Your task to perform on an android device: Add energizer triple a to the cart on bestbuy.com, then select checkout. Image 0: 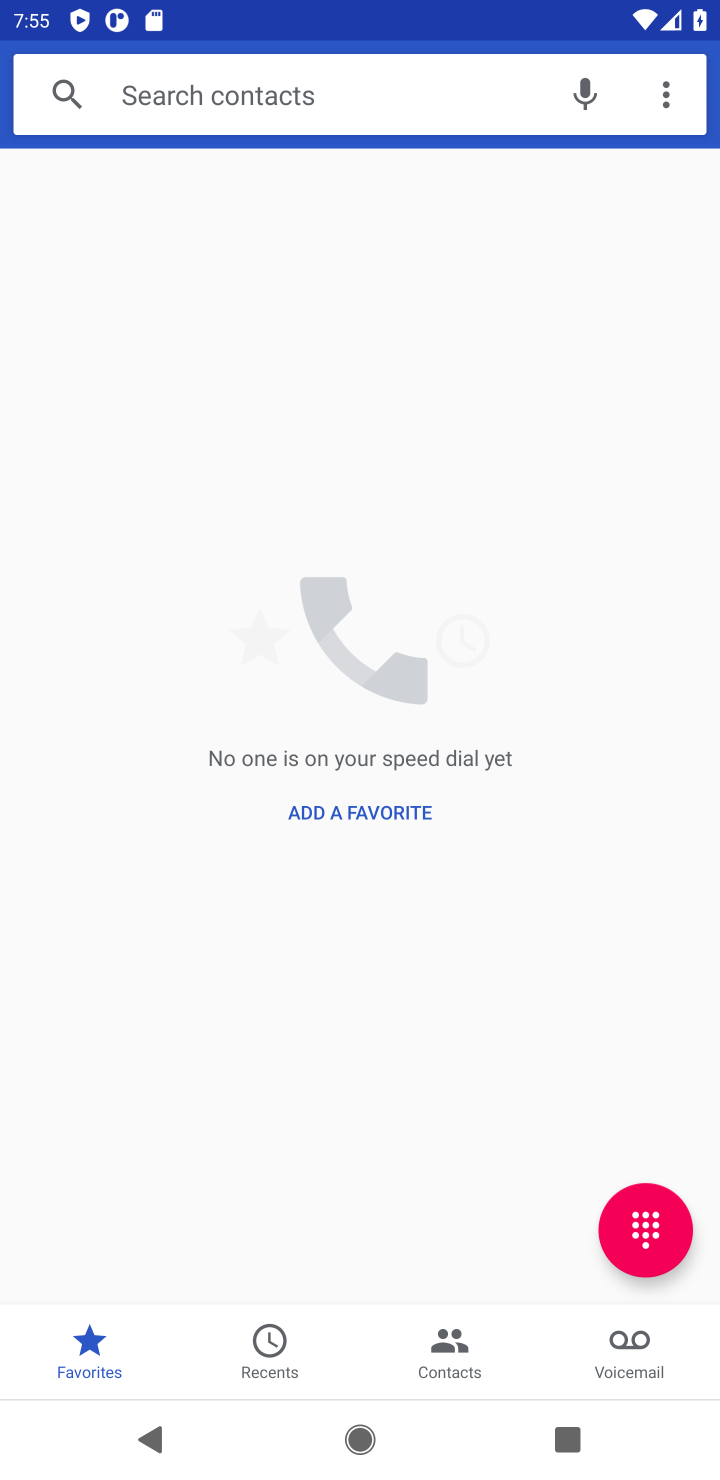
Step 0: press home button
Your task to perform on an android device: Add energizer triple a to the cart on bestbuy.com, then select checkout. Image 1: 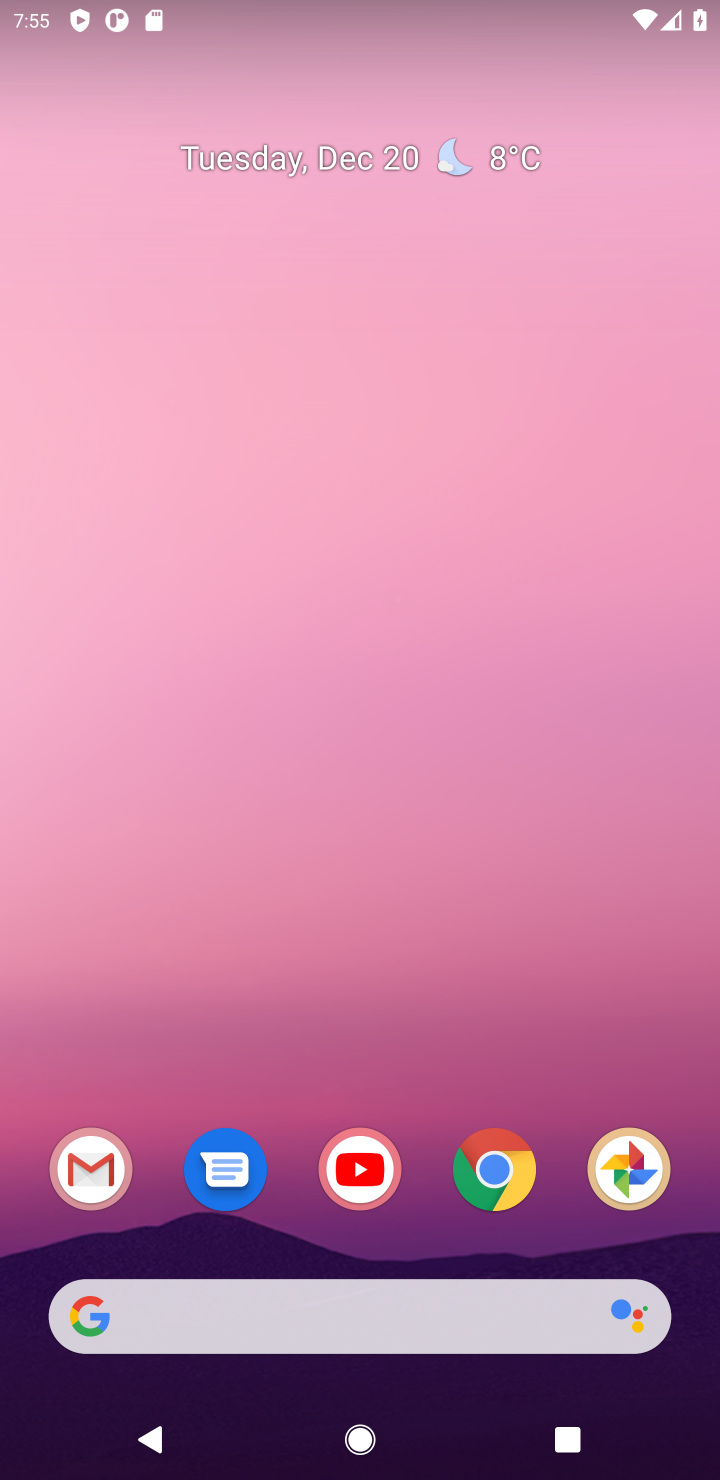
Step 1: click (514, 1182)
Your task to perform on an android device: Add energizer triple a to the cart on bestbuy.com, then select checkout. Image 2: 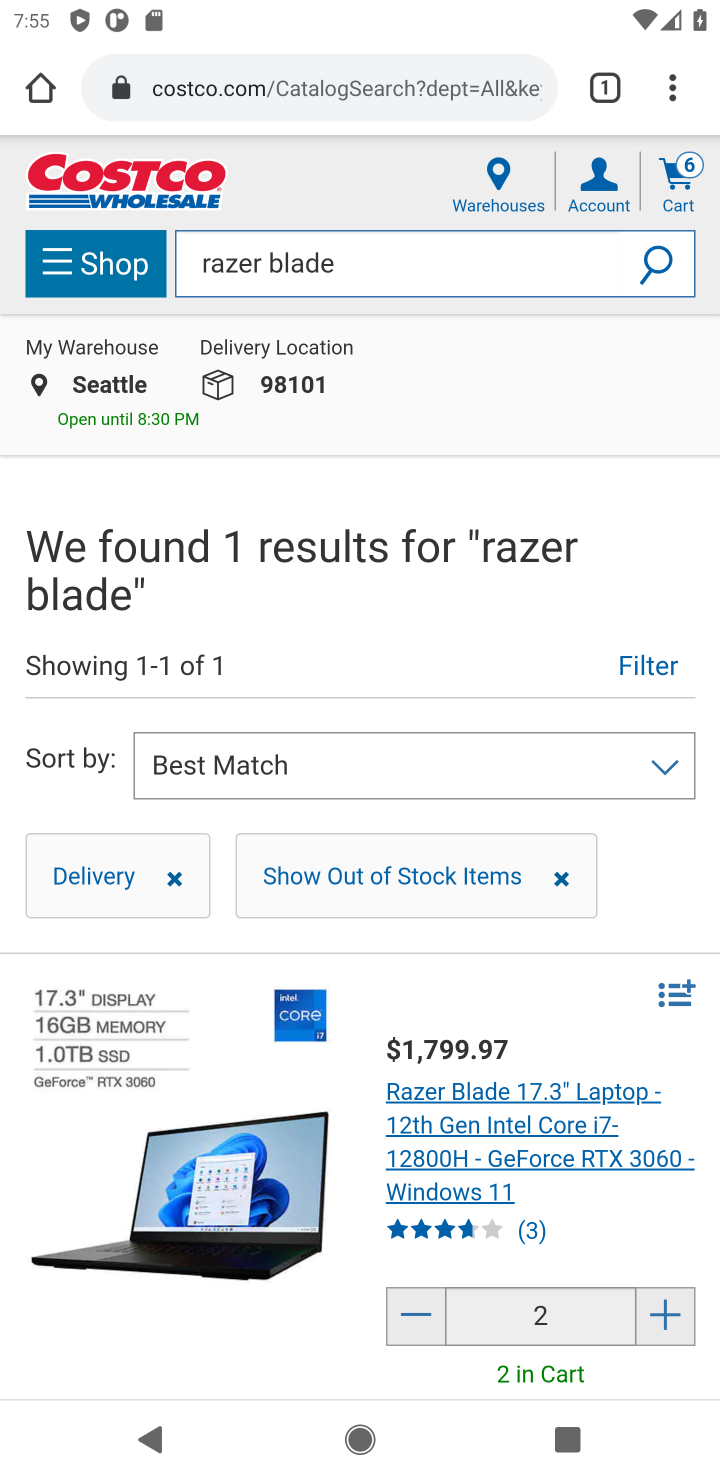
Step 2: click (301, 93)
Your task to perform on an android device: Add energizer triple a to the cart on bestbuy.com, then select checkout. Image 3: 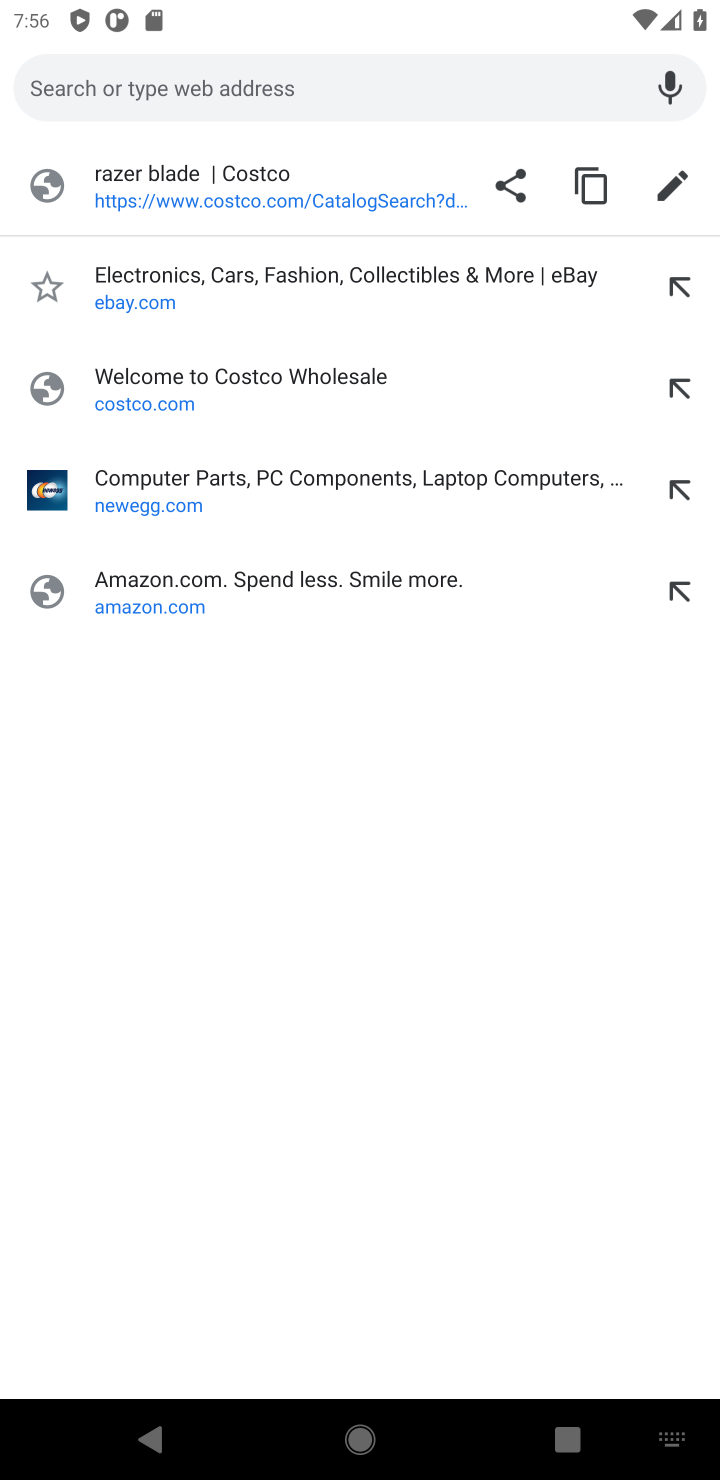
Step 3: type "bestbuy"
Your task to perform on an android device: Add energizer triple a to the cart on bestbuy.com, then select checkout. Image 4: 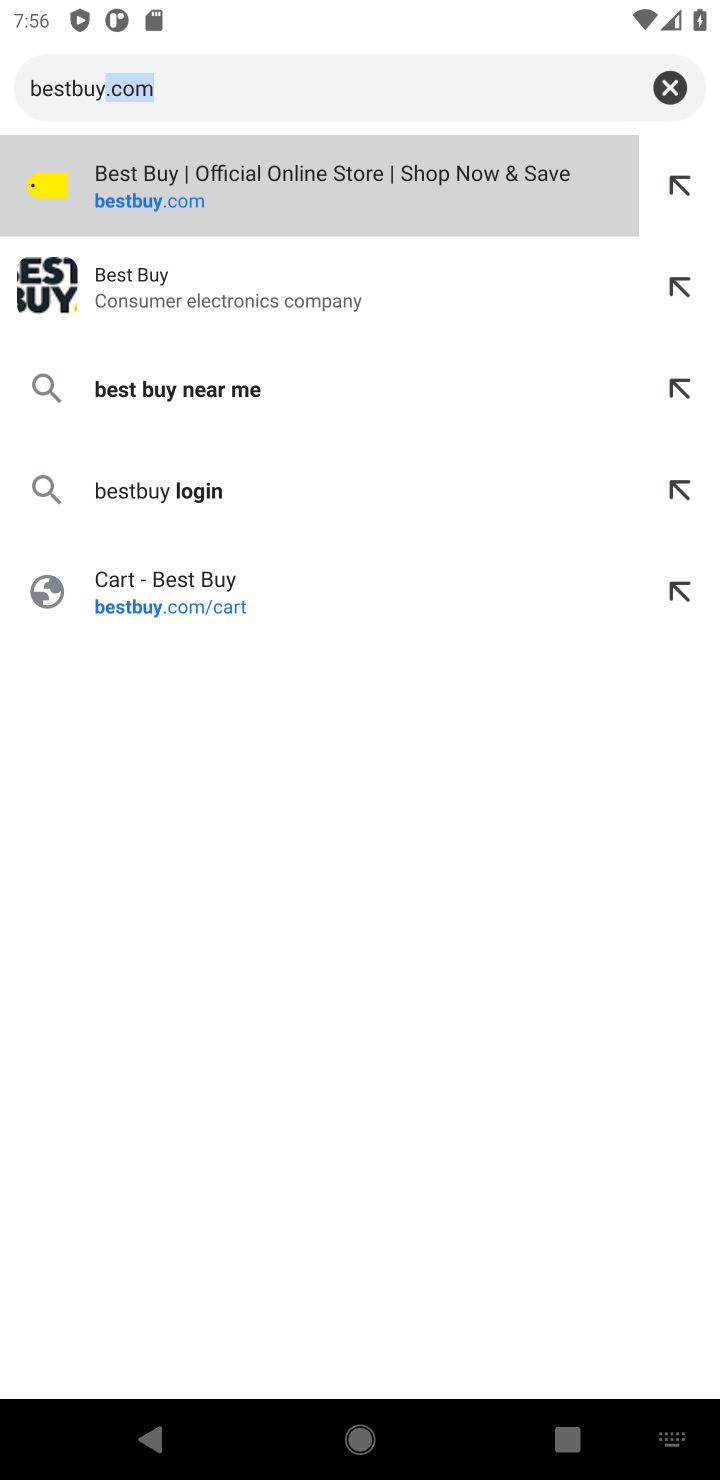
Step 4: click (241, 216)
Your task to perform on an android device: Add energizer triple a to the cart on bestbuy.com, then select checkout. Image 5: 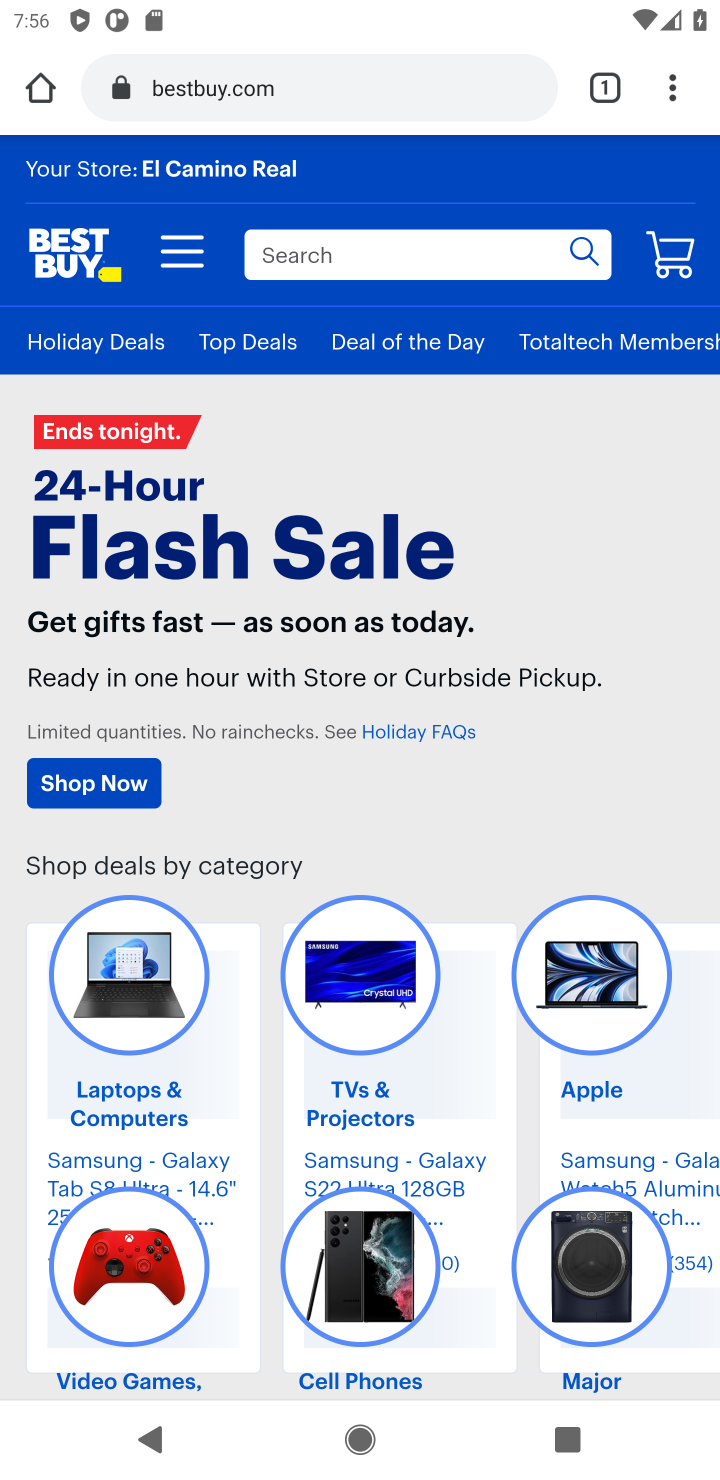
Step 5: click (356, 258)
Your task to perform on an android device: Add energizer triple a to the cart on bestbuy.com, then select checkout. Image 6: 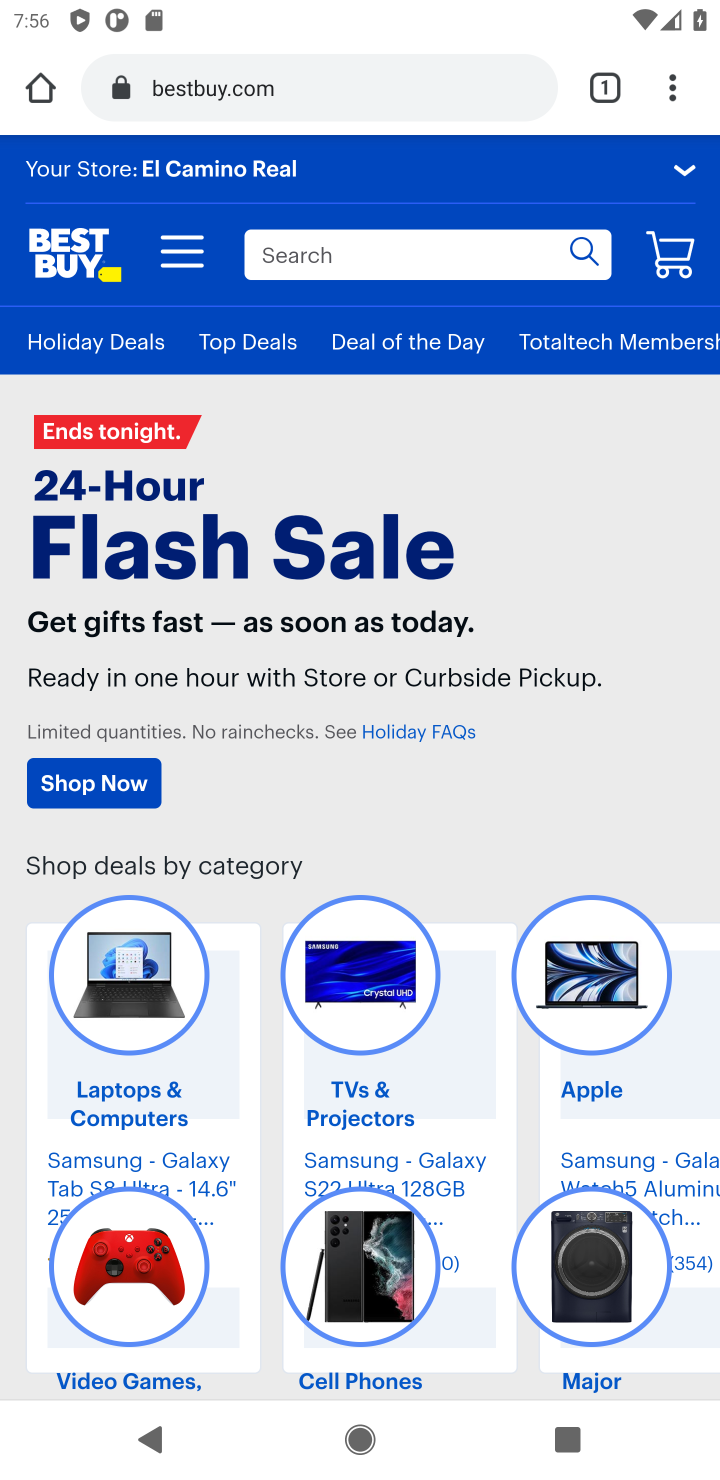
Step 6: click (334, 264)
Your task to perform on an android device: Add energizer triple a to the cart on bestbuy.com, then select checkout. Image 7: 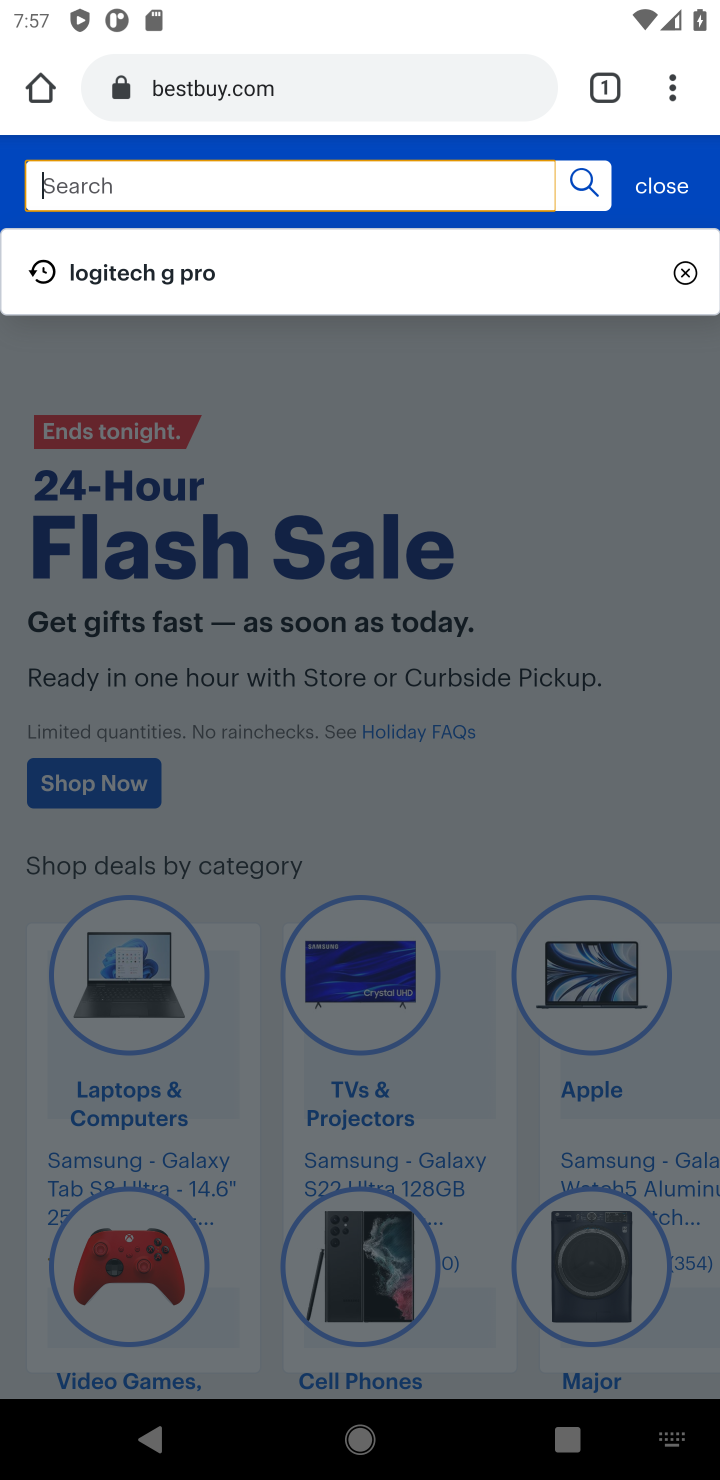
Step 7: type "energizer triple a"
Your task to perform on an android device: Add energizer triple a to the cart on bestbuy.com, then select checkout. Image 8: 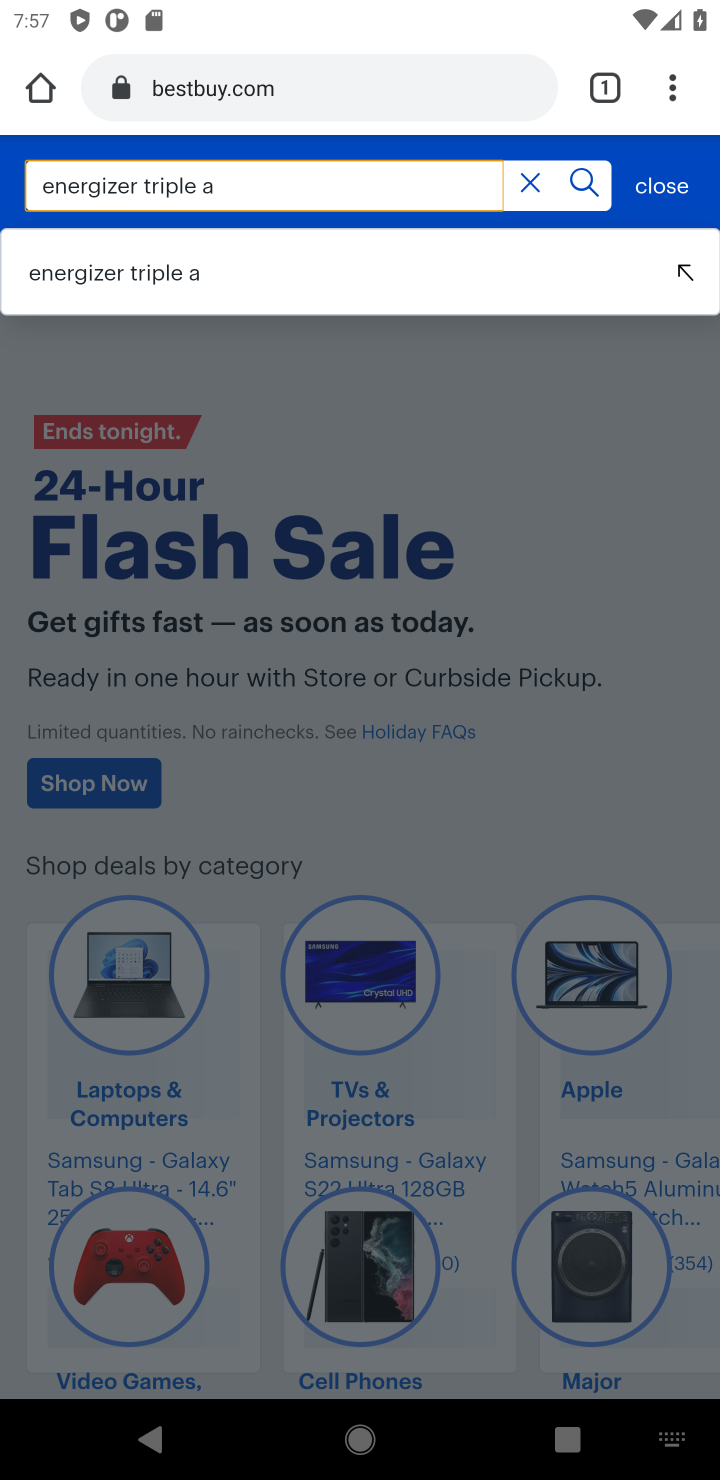
Step 8: click (50, 265)
Your task to perform on an android device: Add energizer triple a to the cart on bestbuy.com, then select checkout. Image 9: 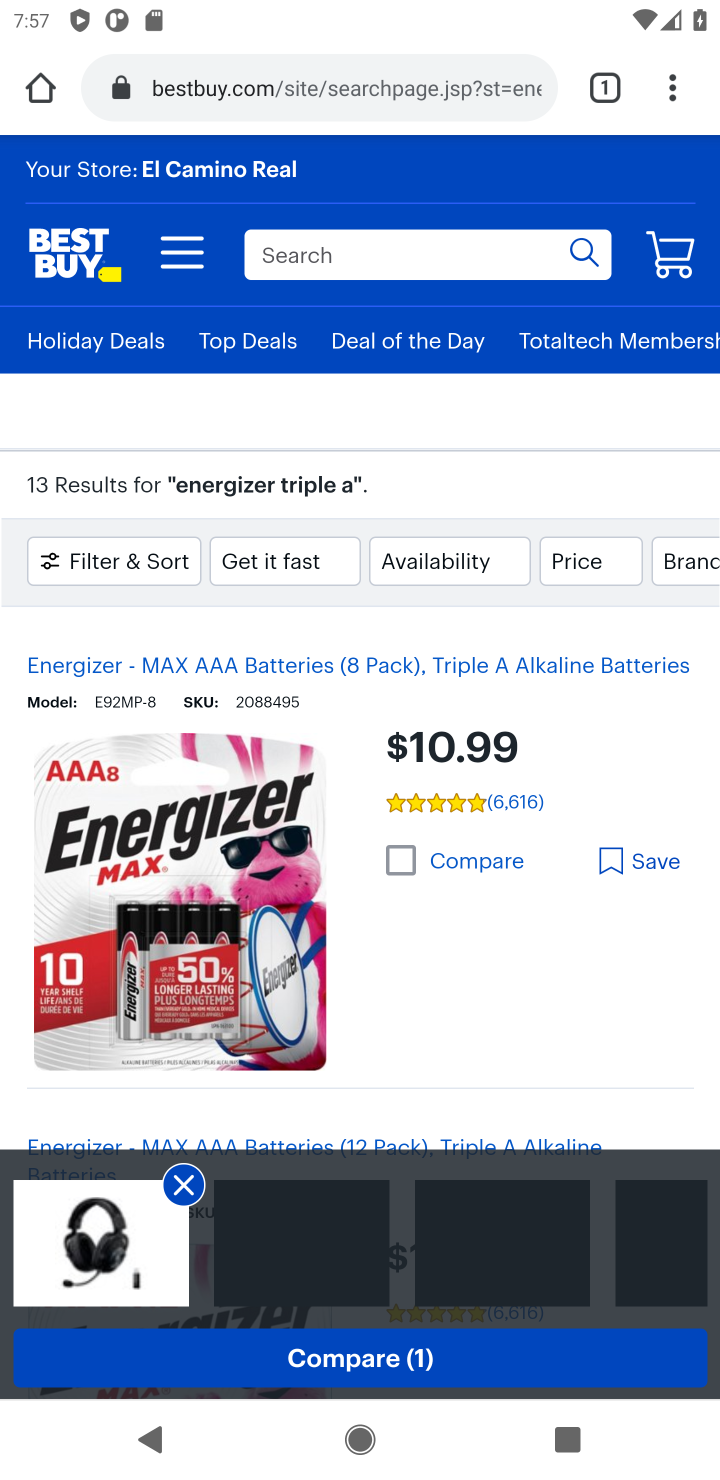
Step 9: click (253, 915)
Your task to perform on an android device: Add energizer triple a to the cart on bestbuy.com, then select checkout. Image 10: 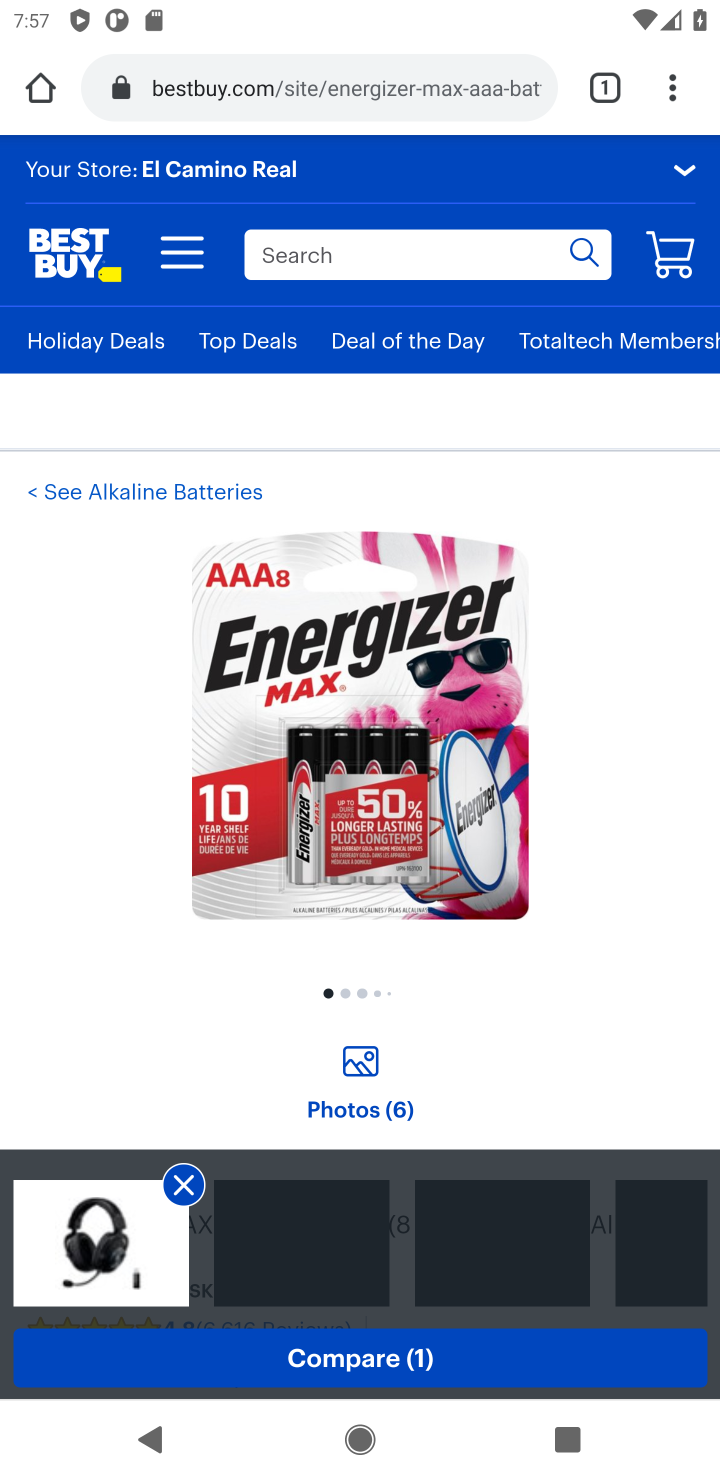
Step 10: task complete